Your task to perform on an android device: turn on improve location accuracy Image 0: 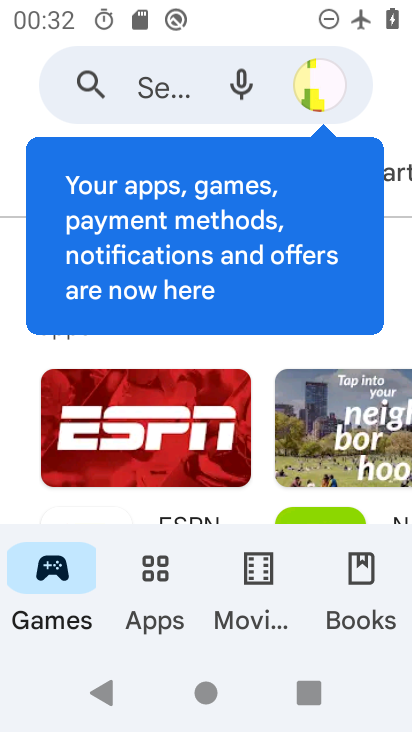
Step 0: press home button
Your task to perform on an android device: turn on improve location accuracy Image 1: 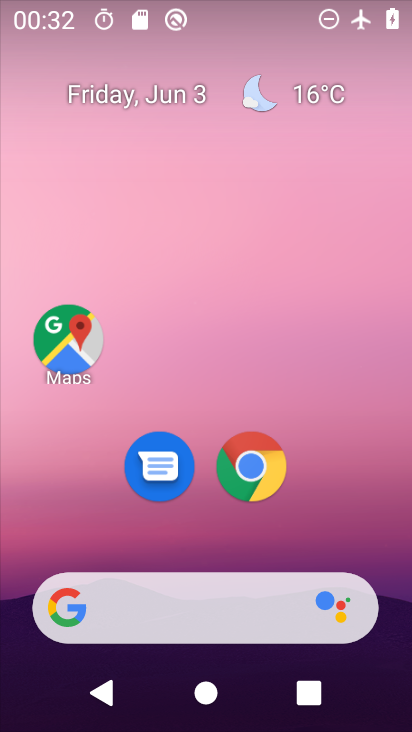
Step 1: drag from (202, 548) to (233, 197)
Your task to perform on an android device: turn on improve location accuracy Image 2: 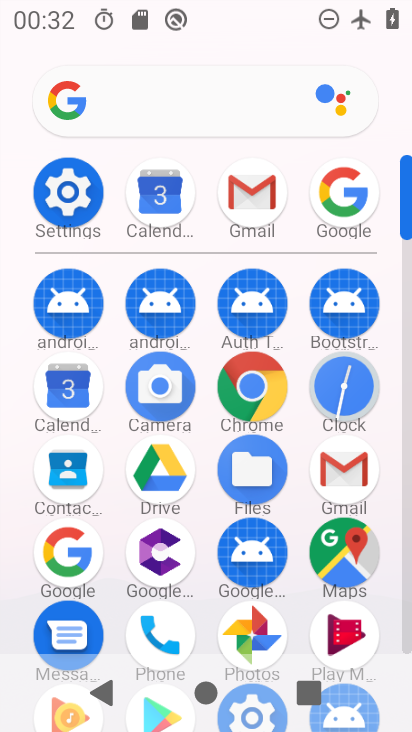
Step 2: click (53, 192)
Your task to perform on an android device: turn on improve location accuracy Image 3: 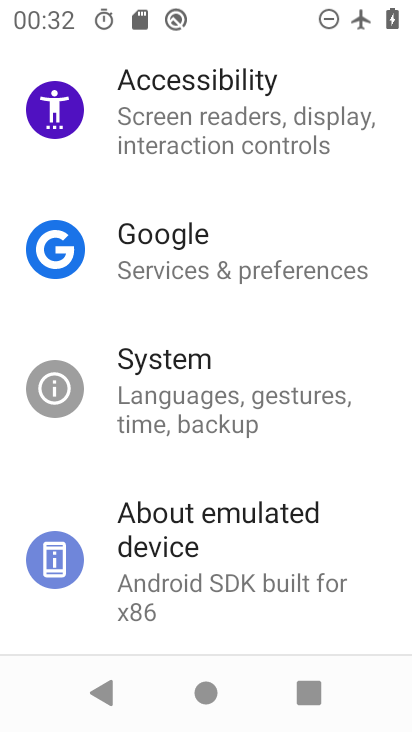
Step 3: drag from (204, 168) to (233, 533)
Your task to perform on an android device: turn on improve location accuracy Image 4: 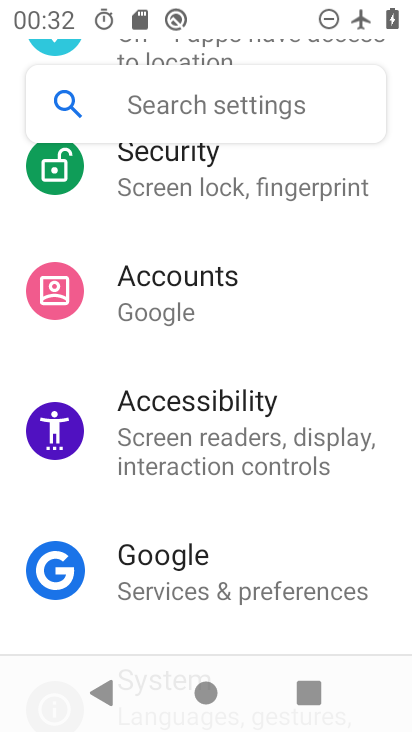
Step 4: drag from (242, 219) to (243, 461)
Your task to perform on an android device: turn on improve location accuracy Image 5: 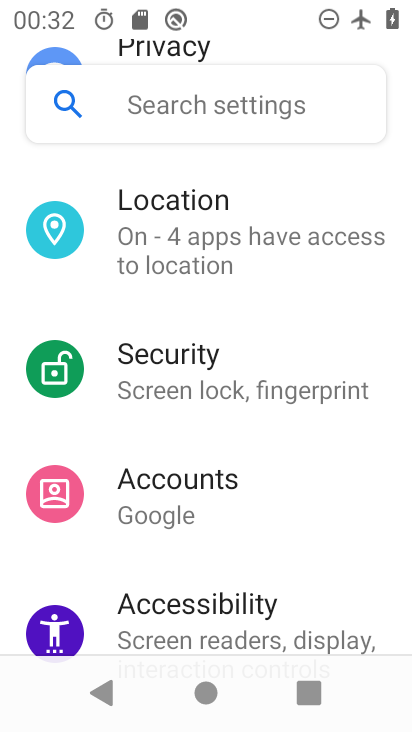
Step 5: click (238, 263)
Your task to perform on an android device: turn on improve location accuracy Image 6: 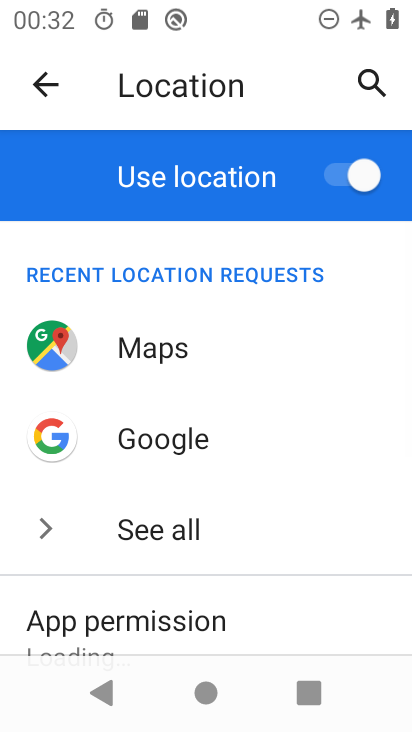
Step 6: drag from (241, 498) to (252, 298)
Your task to perform on an android device: turn on improve location accuracy Image 7: 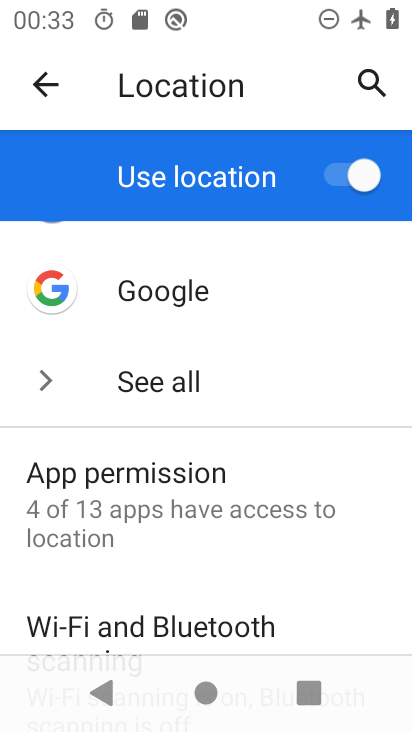
Step 7: drag from (262, 514) to (259, 348)
Your task to perform on an android device: turn on improve location accuracy Image 8: 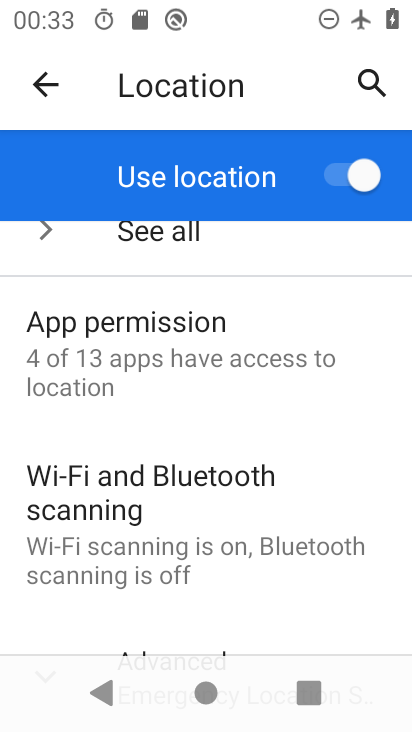
Step 8: drag from (226, 498) to (237, 287)
Your task to perform on an android device: turn on improve location accuracy Image 9: 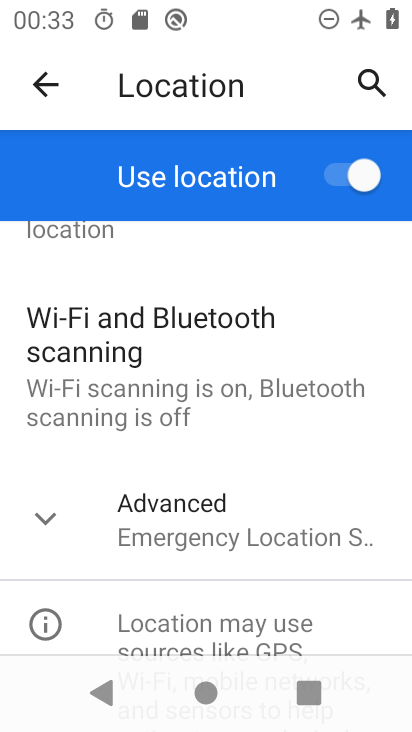
Step 9: click (232, 535)
Your task to perform on an android device: turn on improve location accuracy Image 10: 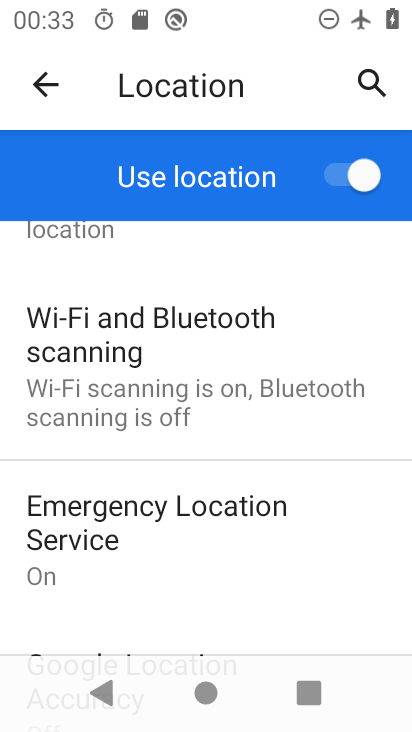
Step 10: drag from (240, 589) to (249, 386)
Your task to perform on an android device: turn on improve location accuracy Image 11: 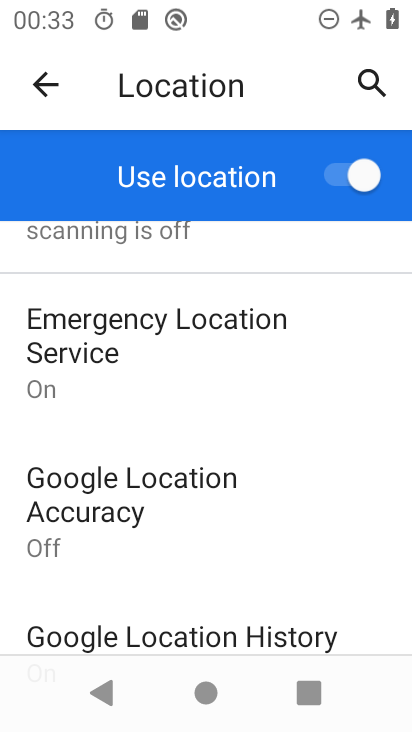
Step 11: click (197, 487)
Your task to perform on an android device: turn on improve location accuracy Image 12: 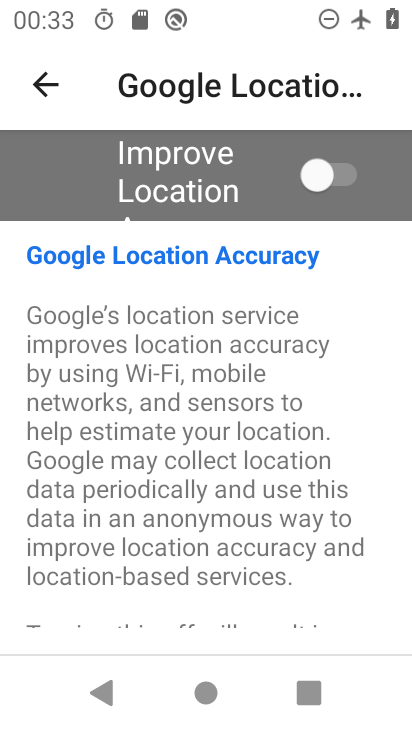
Step 12: click (332, 171)
Your task to perform on an android device: turn on improve location accuracy Image 13: 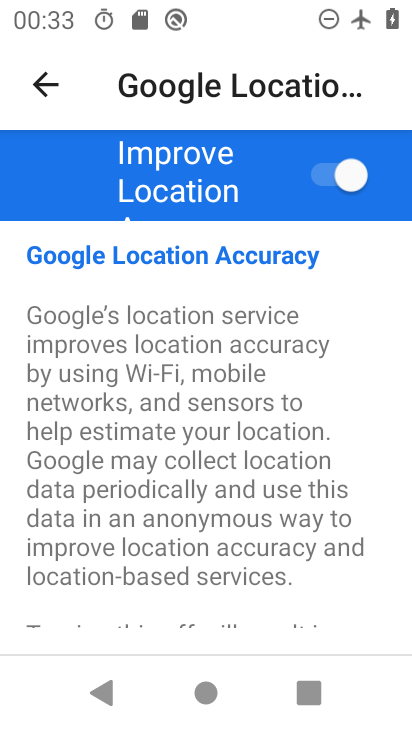
Step 13: task complete